Your task to perform on an android device: Open battery settings Image 0: 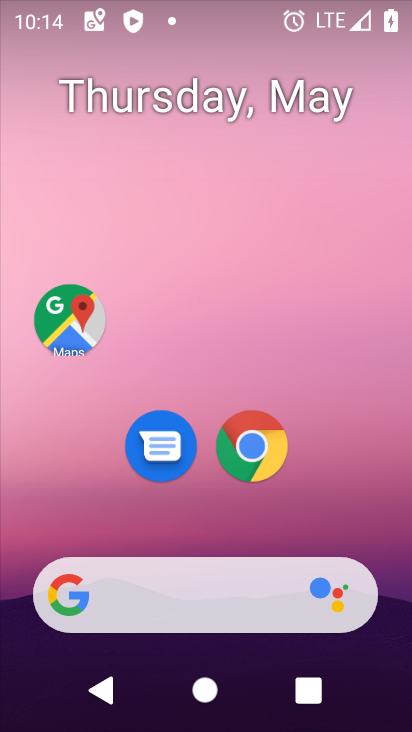
Step 0: drag from (399, 605) to (331, 225)
Your task to perform on an android device: Open battery settings Image 1: 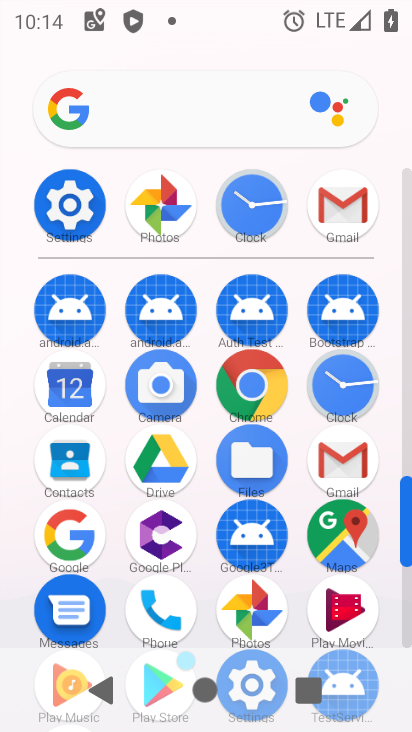
Step 1: click (407, 632)
Your task to perform on an android device: Open battery settings Image 2: 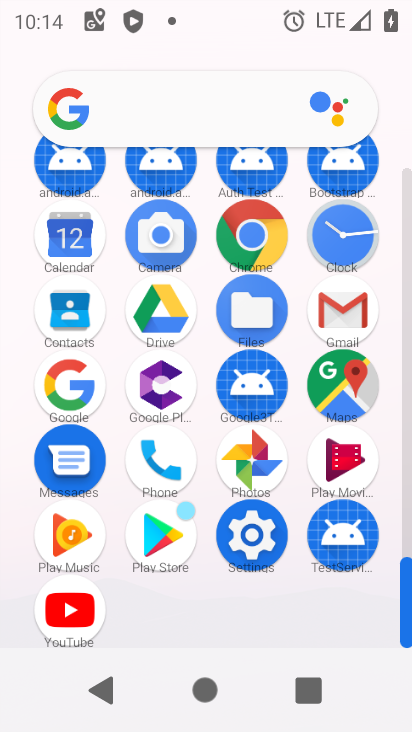
Step 2: click (247, 534)
Your task to perform on an android device: Open battery settings Image 3: 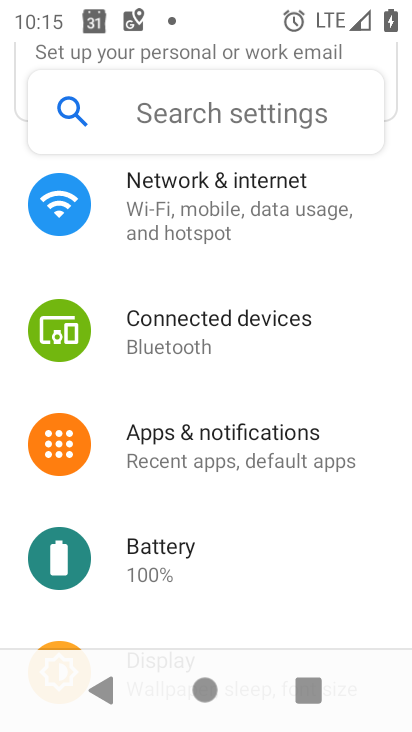
Step 3: click (165, 586)
Your task to perform on an android device: Open battery settings Image 4: 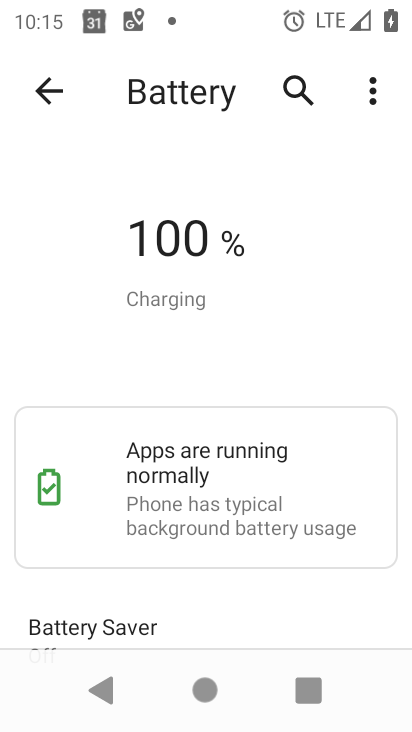
Step 4: task complete